Your task to perform on an android device: change the upload size in google photos Image 0: 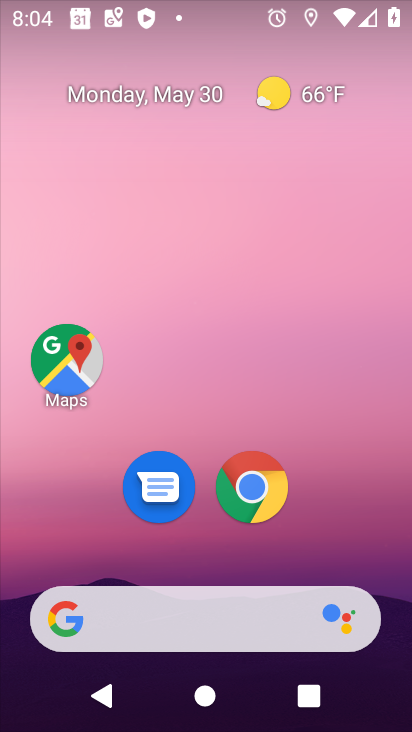
Step 0: press home button
Your task to perform on an android device: change the upload size in google photos Image 1: 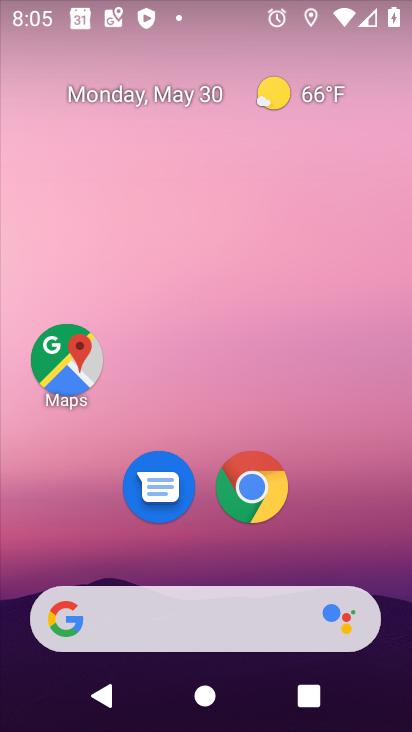
Step 1: drag from (355, 552) to (292, 83)
Your task to perform on an android device: change the upload size in google photos Image 2: 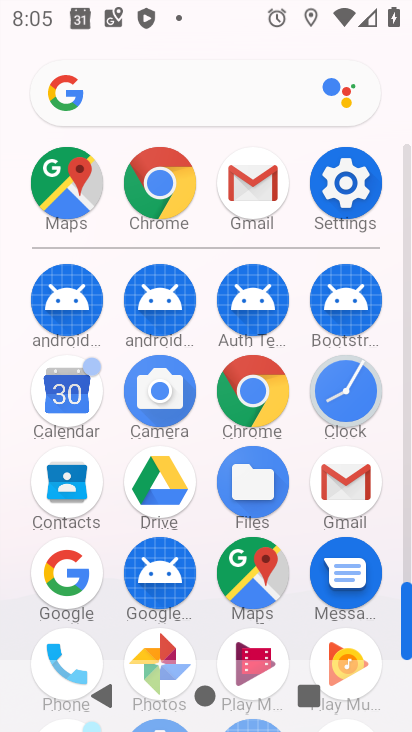
Step 2: click (165, 680)
Your task to perform on an android device: change the upload size in google photos Image 3: 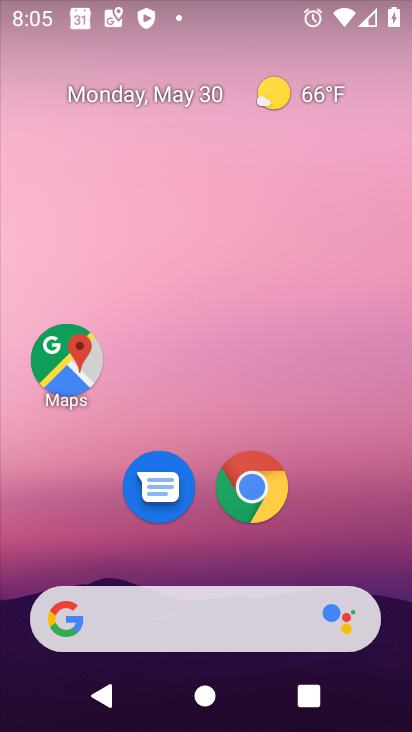
Step 3: drag from (341, 530) to (351, 134)
Your task to perform on an android device: change the upload size in google photos Image 4: 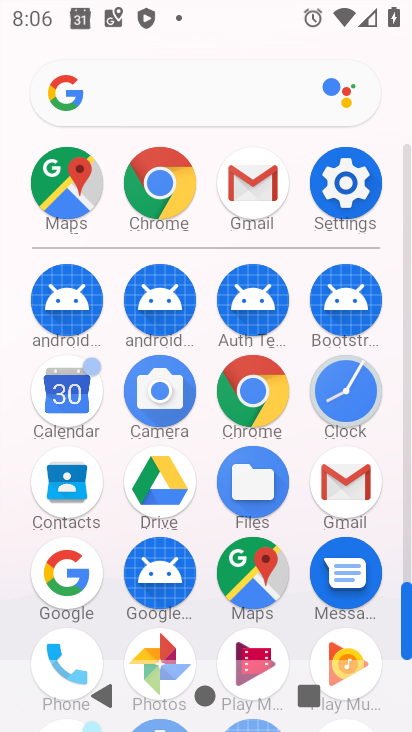
Step 4: click (169, 661)
Your task to perform on an android device: change the upload size in google photos Image 5: 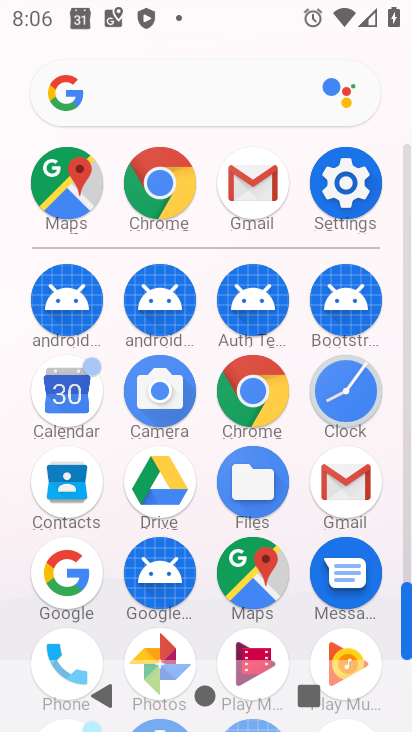
Step 5: drag from (388, 451) to (399, 194)
Your task to perform on an android device: change the upload size in google photos Image 6: 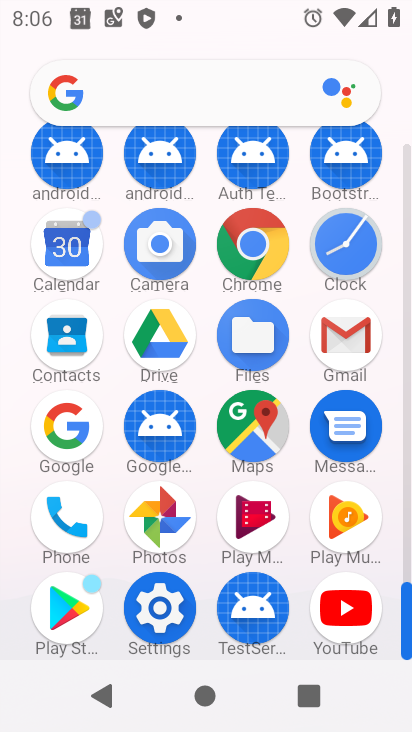
Step 6: click (164, 524)
Your task to perform on an android device: change the upload size in google photos Image 7: 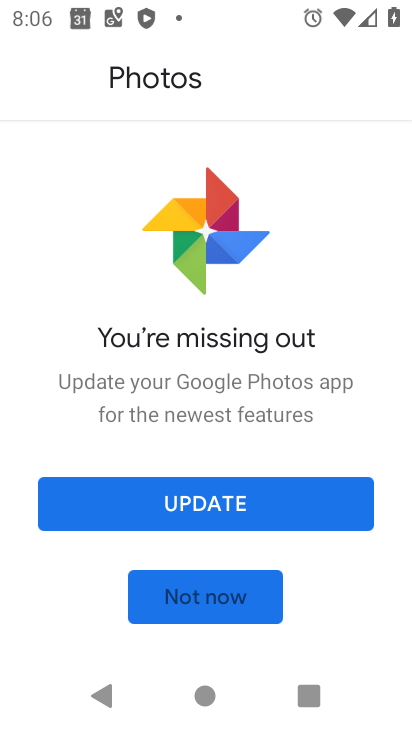
Step 7: click (185, 510)
Your task to perform on an android device: change the upload size in google photos Image 8: 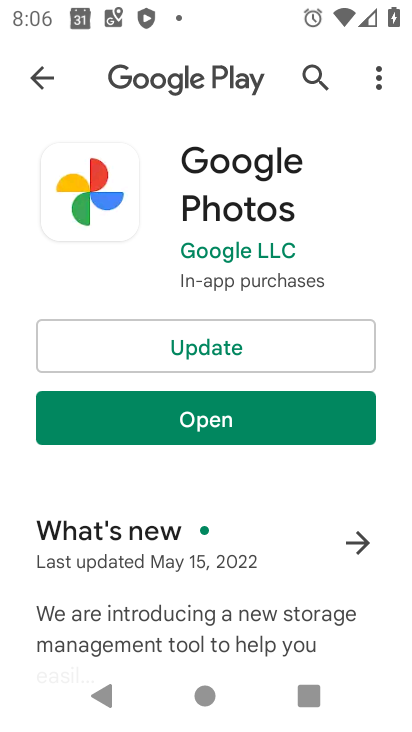
Step 8: click (258, 352)
Your task to perform on an android device: change the upload size in google photos Image 9: 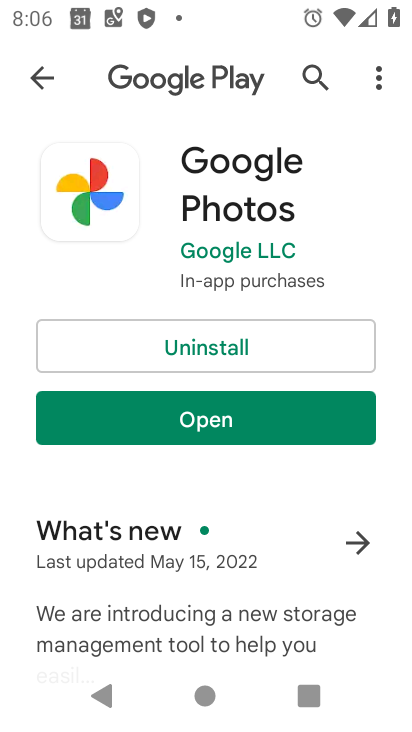
Step 9: click (121, 415)
Your task to perform on an android device: change the upload size in google photos Image 10: 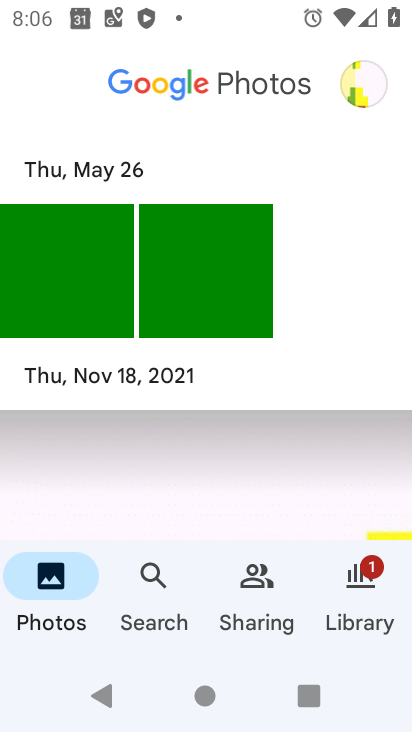
Step 10: click (375, 77)
Your task to perform on an android device: change the upload size in google photos Image 11: 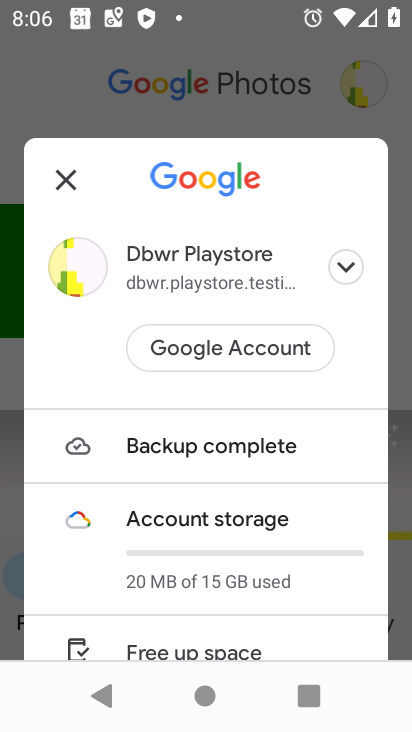
Step 11: drag from (342, 501) to (340, 281)
Your task to perform on an android device: change the upload size in google photos Image 12: 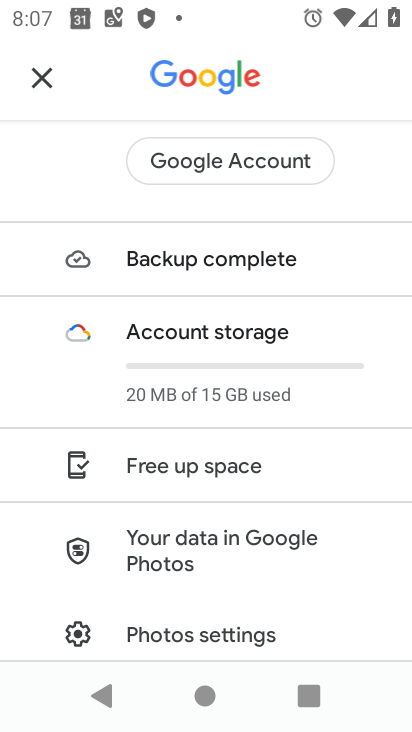
Step 12: drag from (361, 587) to (370, 332)
Your task to perform on an android device: change the upload size in google photos Image 13: 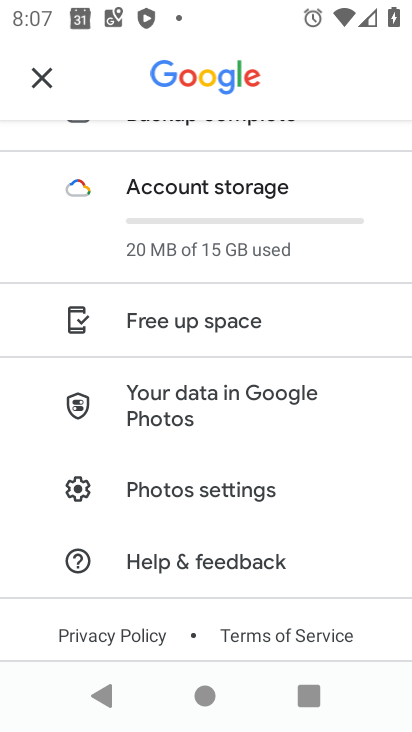
Step 13: click (192, 496)
Your task to perform on an android device: change the upload size in google photos Image 14: 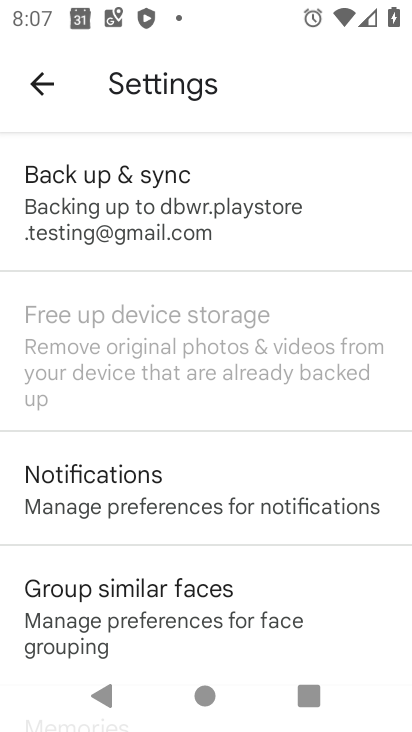
Step 14: click (130, 177)
Your task to perform on an android device: change the upload size in google photos Image 15: 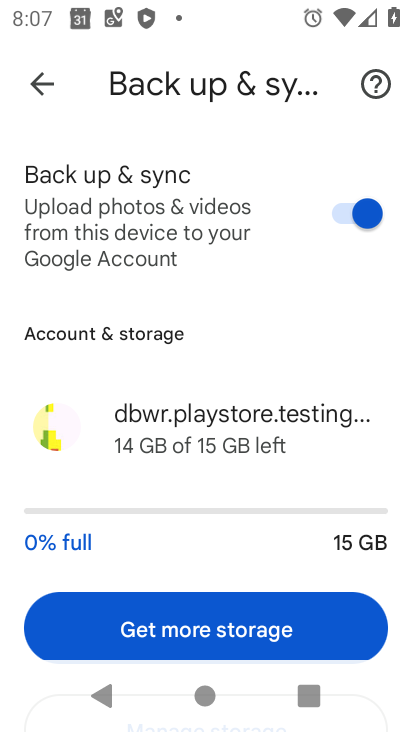
Step 15: drag from (290, 341) to (304, 134)
Your task to perform on an android device: change the upload size in google photos Image 16: 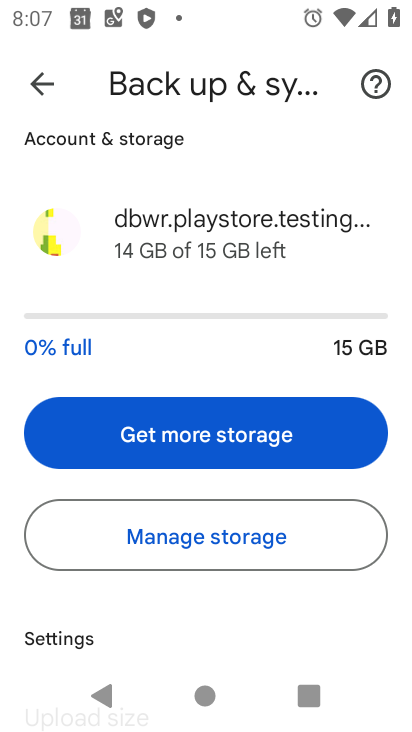
Step 16: drag from (303, 588) to (311, 259)
Your task to perform on an android device: change the upload size in google photos Image 17: 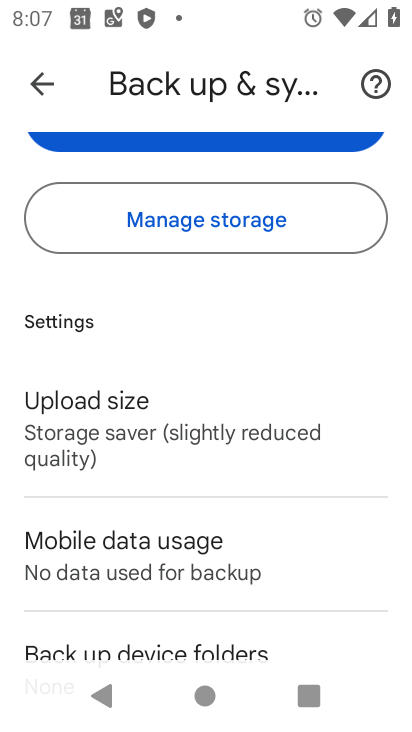
Step 17: click (86, 416)
Your task to perform on an android device: change the upload size in google photos Image 18: 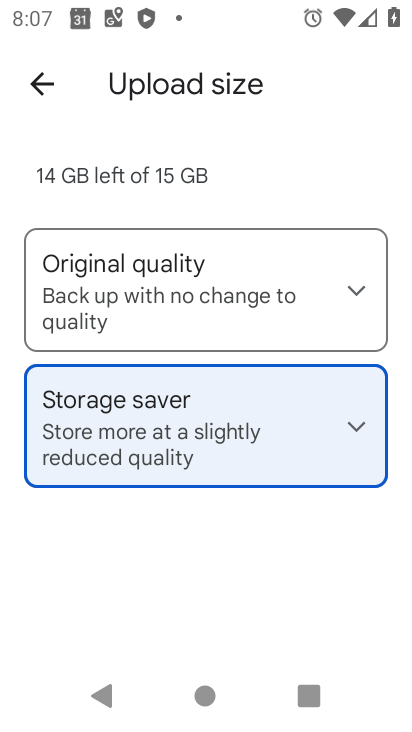
Step 18: click (101, 425)
Your task to perform on an android device: change the upload size in google photos Image 19: 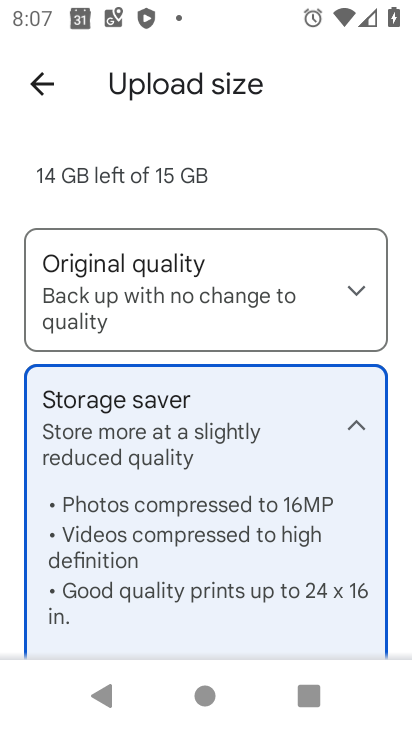
Step 19: task complete